Your task to perform on an android device: check out phone information Image 0: 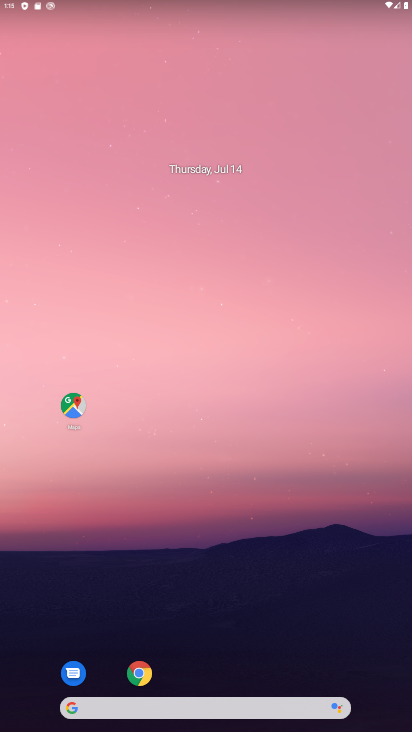
Step 0: drag from (233, 656) to (230, 132)
Your task to perform on an android device: check out phone information Image 1: 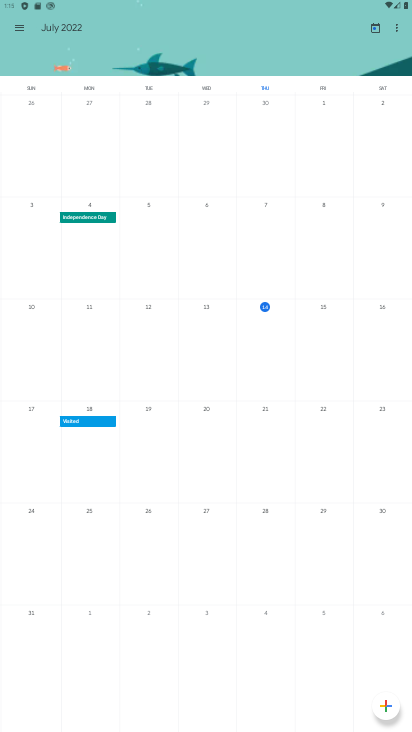
Step 1: press home button
Your task to perform on an android device: check out phone information Image 2: 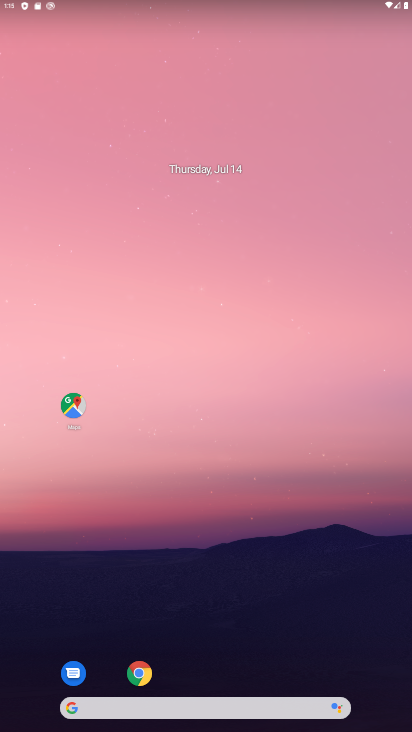
Step 2: drag from (251, 658) to (241, 42)
Your task to perform on an android device: check out phone information Image 3: 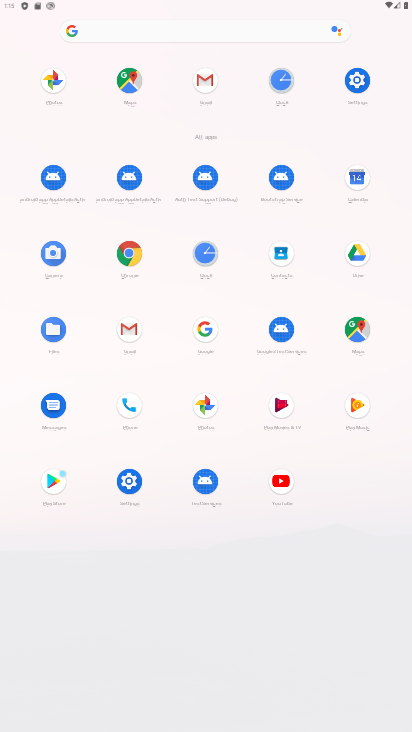
Step 3: click (351, 91)
Your task to perform on an android device: check out phone information Image 4: 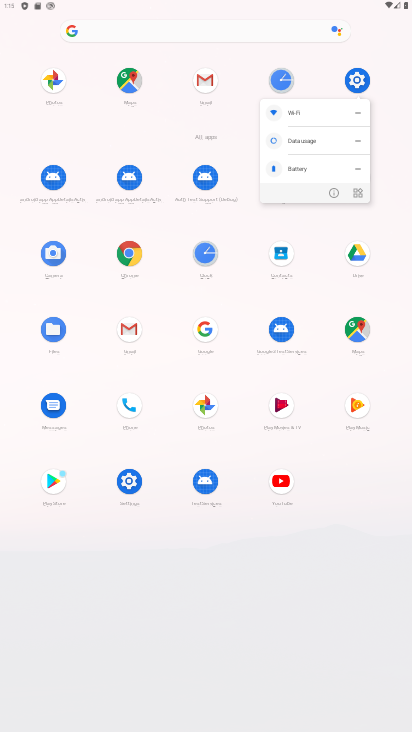
Step 4: click (358, 89)
Your task to perform on an android device: check out phone information Image 5: 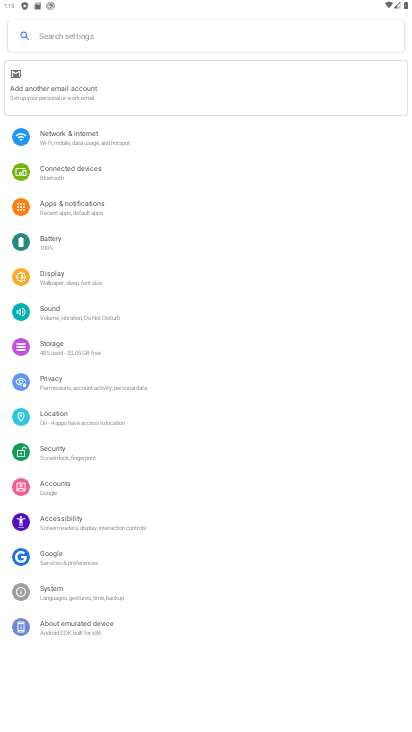
Step 5: click (127, 638)
Your task to perform on an android device: check out phone information Image 6: 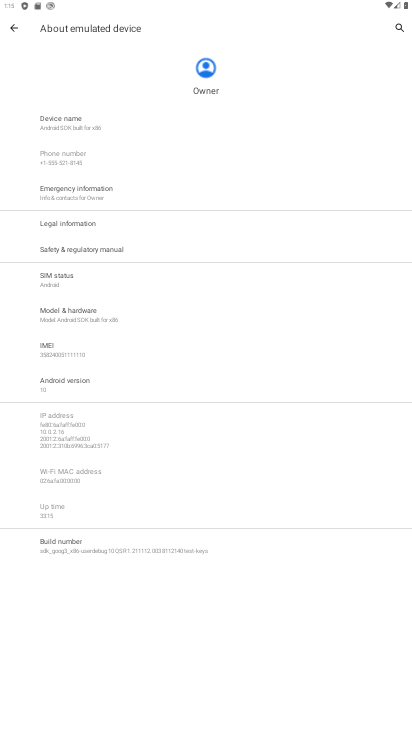
Step 6: task complete